Your task to perform on an android device: Open Chrome and go to the settings page Image 0: 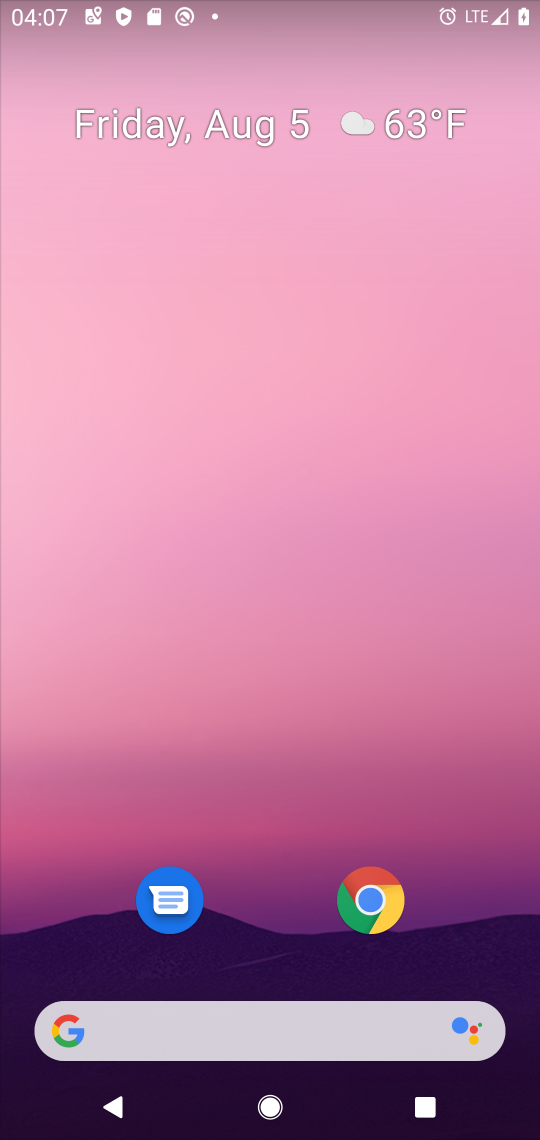
Step 0: drag from (213, 660) to (260, 101)
Your task to perform on an android device: Open Chrome and go to the settings page Image 1: 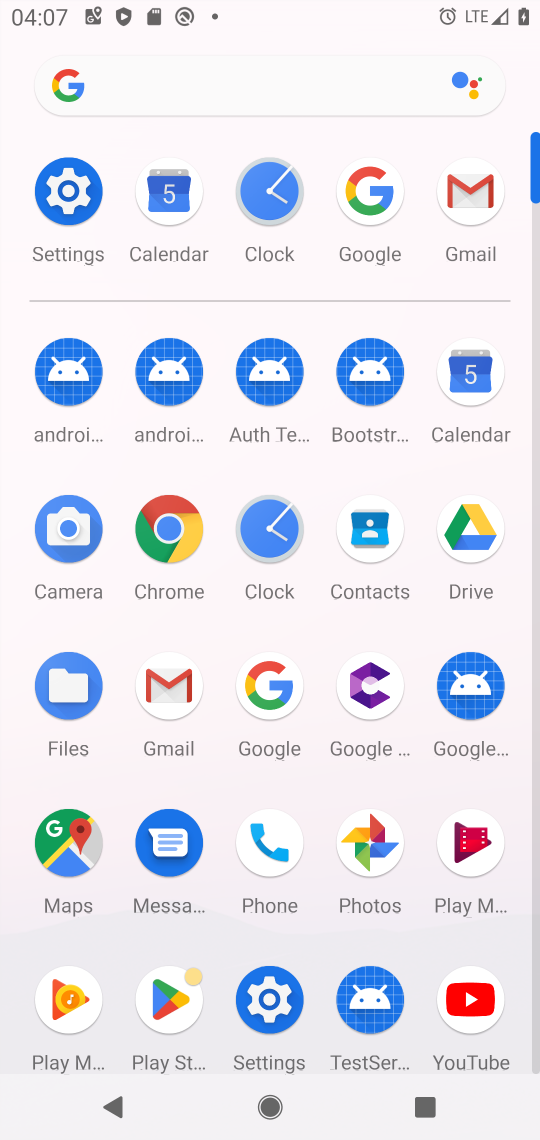
Step 1: click (53, 187)
Your task to perform on an android device: Open Chrome and go to the settings page Image 2: 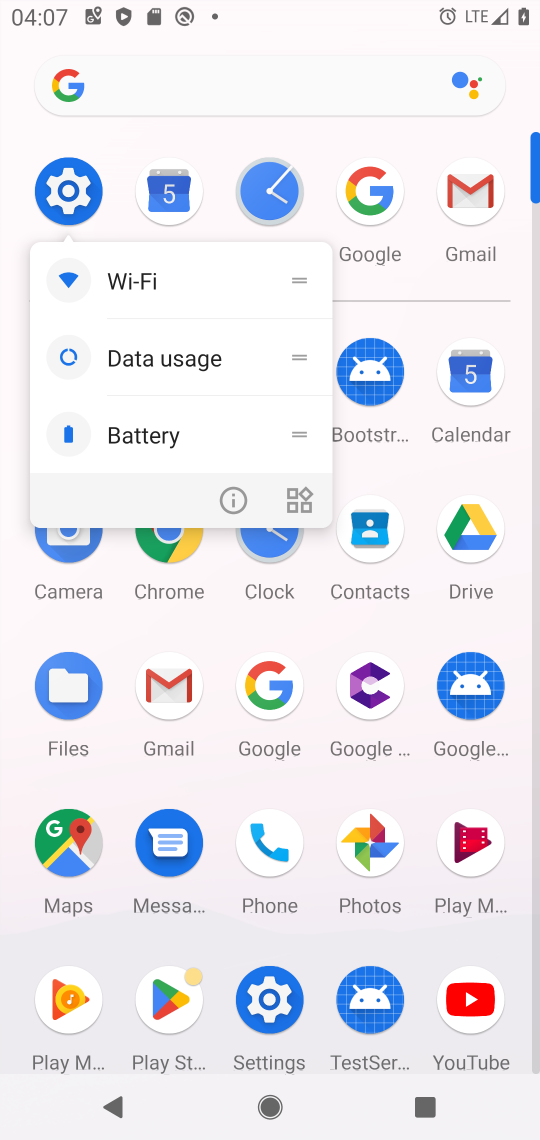
Step 2: click (364, 789)
Your task to perform on an android device: Open Chrome and go to the settings page Image 3: 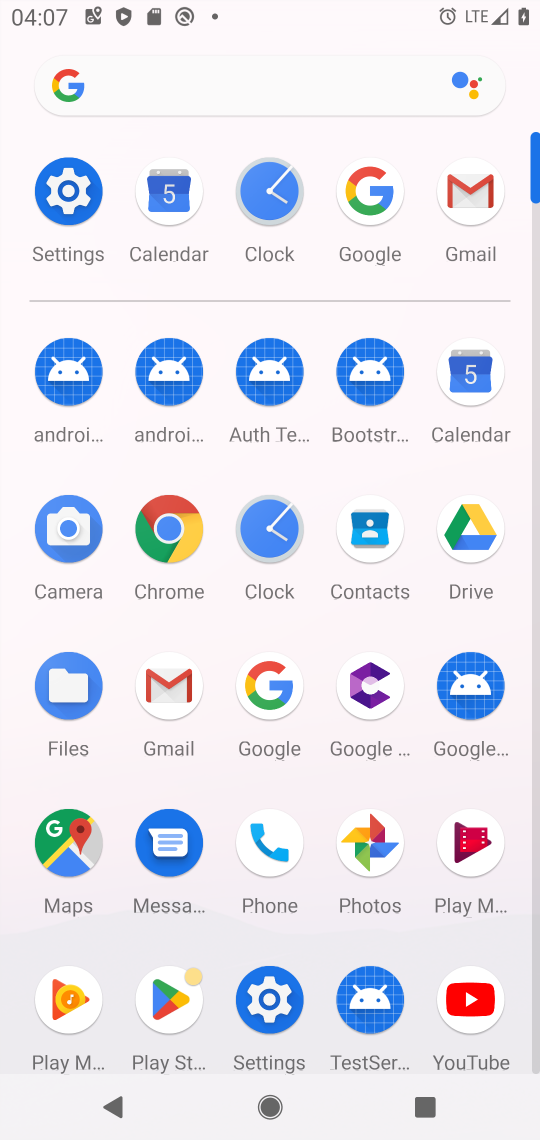
Step 3: click (178, 560)
Your task to perform on an android device: Open Chrome and go to the settings page Image 4: 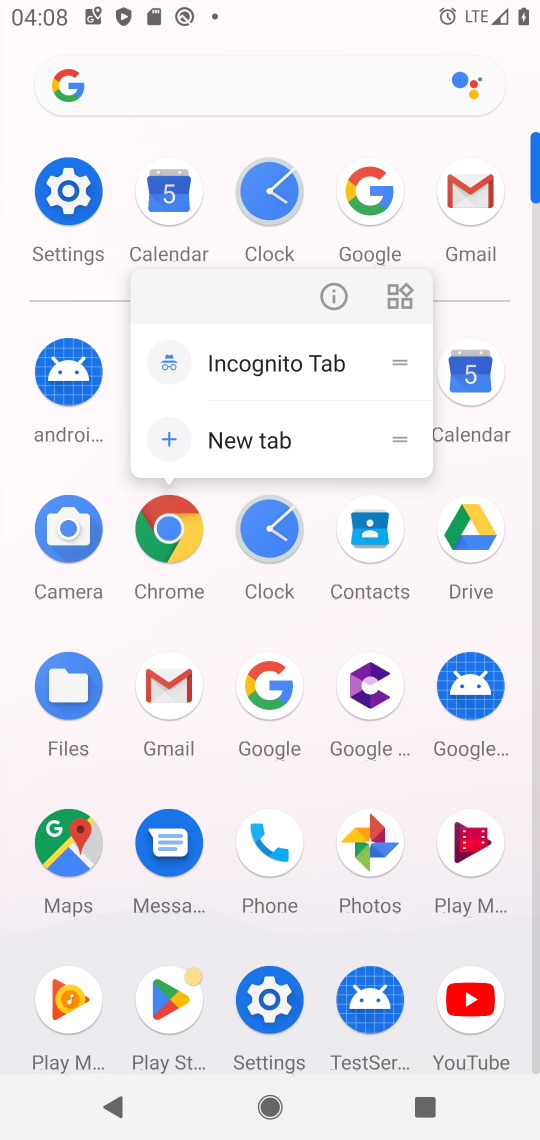
Step 4: click (154, 522)
Your task to perform on an android device: Open Chrome and go to the settings page Image 5: 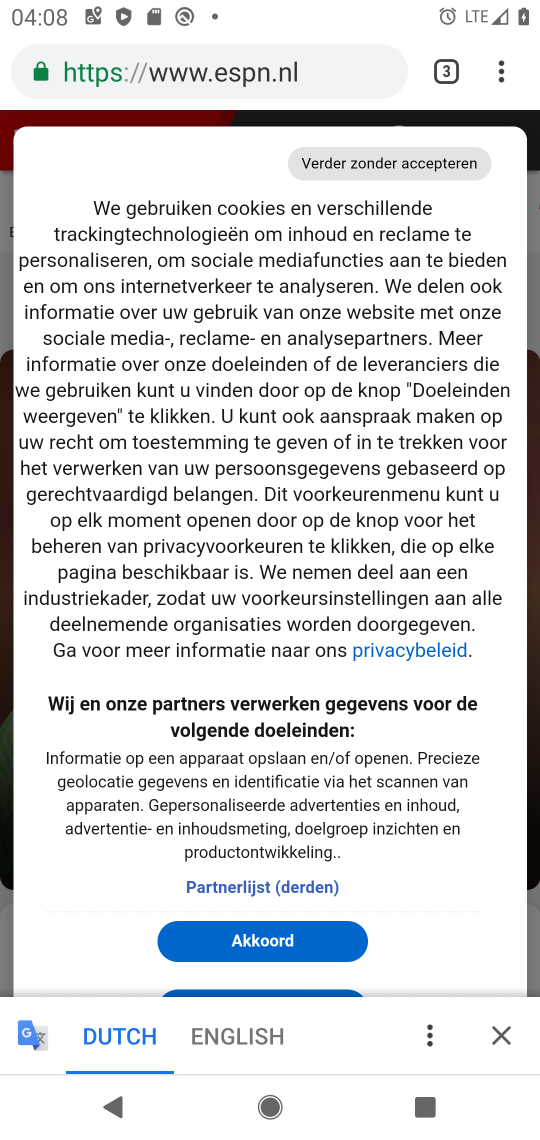
Step 5: task complete